Your task to perform on an android device: Show the shopping cart on costco. Search for logitech g pro on costco, select the first entry, add it to the cart, then select checkout. Image 0: 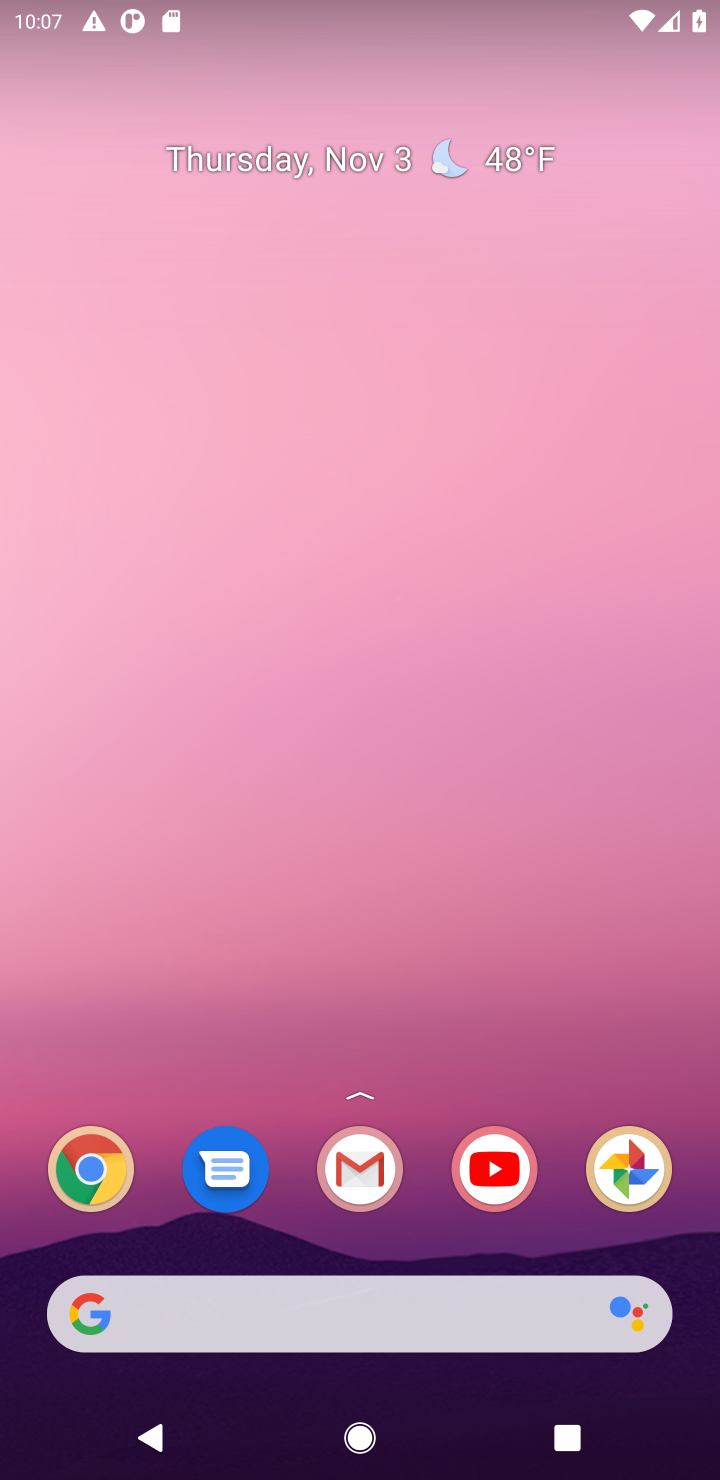
Step 0: drag from (430, 1247) to (512, 193)
Your task to perform on an android device: Show the shopping cart on costco. Search for logitech g pro on costco, select the first entry, add it to the cart, then select checkout. Image 1: 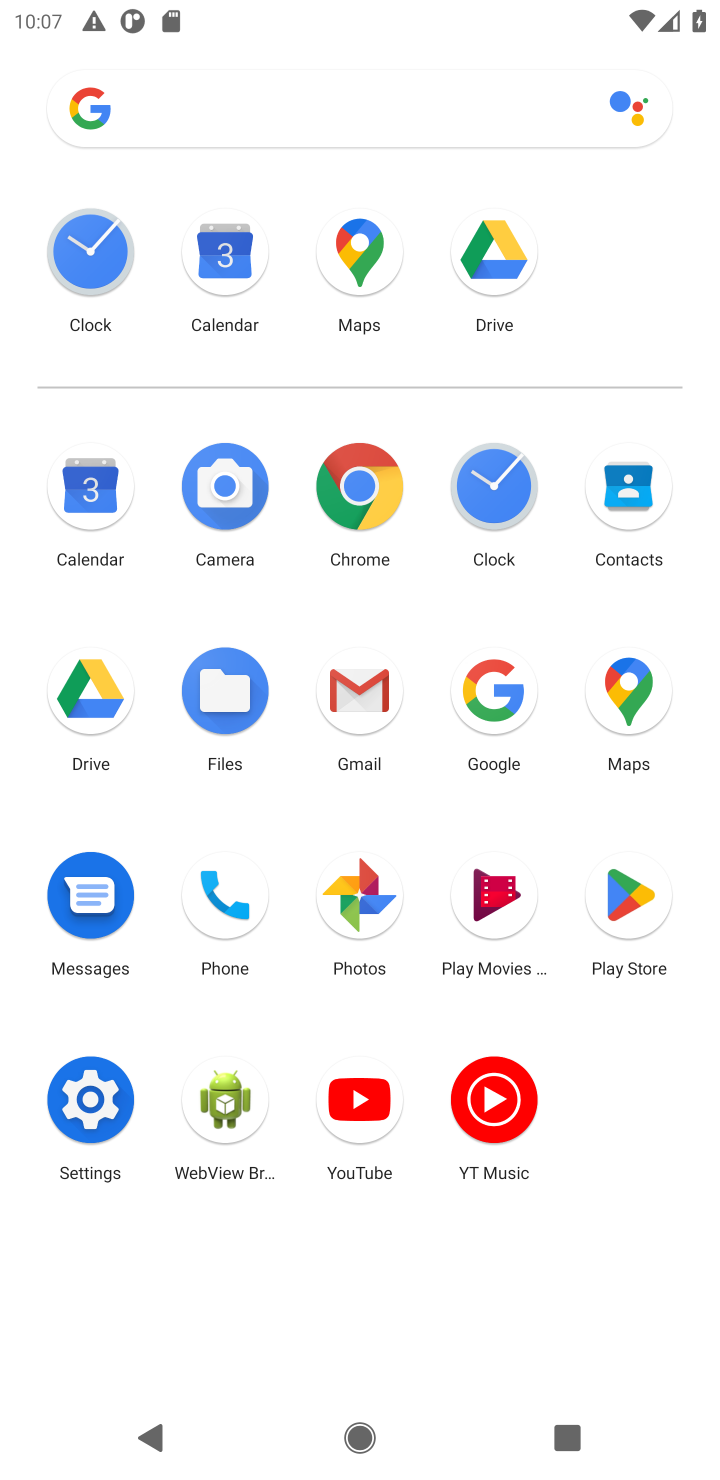
Step 1: click (355, 487)
Your task to perform on an android device: Show the shopping cart on costco. Search for logitech g pro on costco, select the first entry, add it to the cart, then select checkout. Image 2: 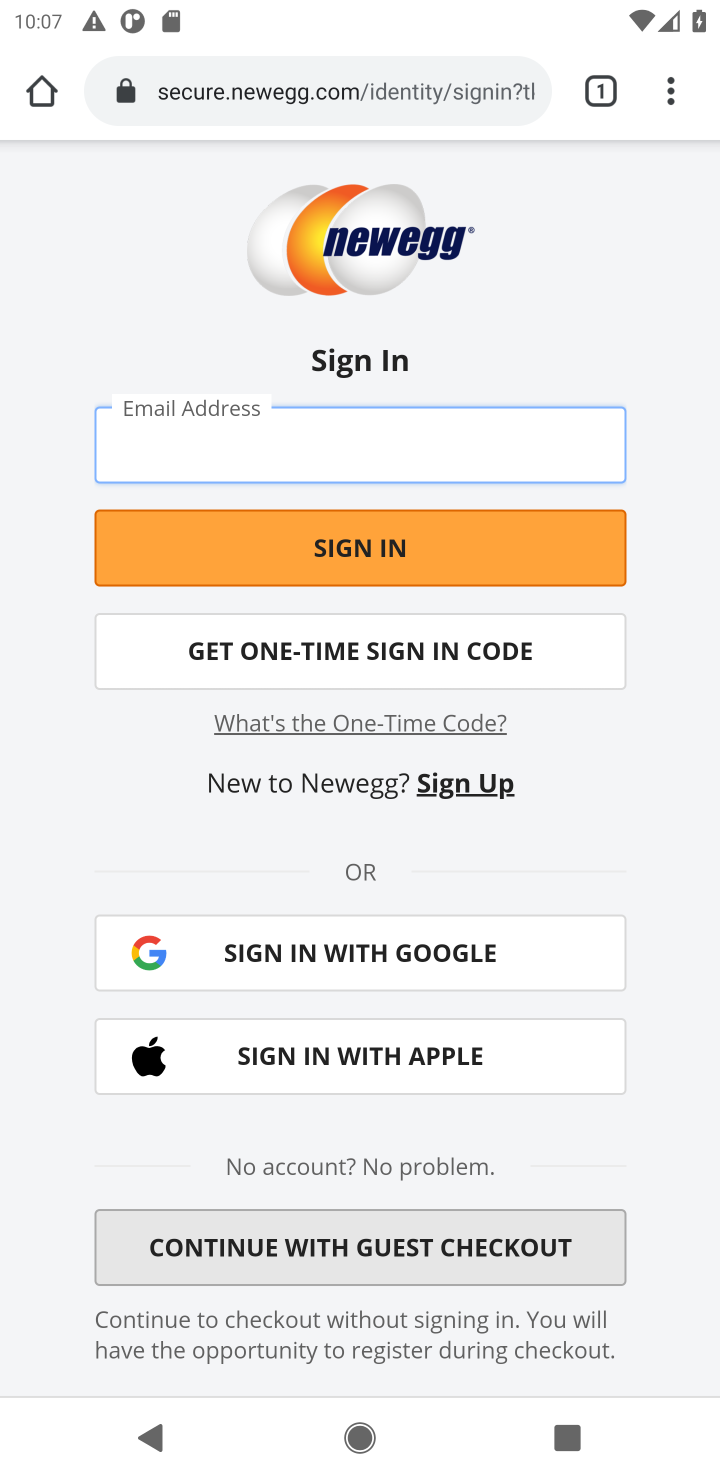
Step 2: click (419, 97)
Your task to perform on an android device: Show the shopping cart on costco. Search for logitech g pro on costco, select the first entry, add it to the cart, then select checkout. Image 3: 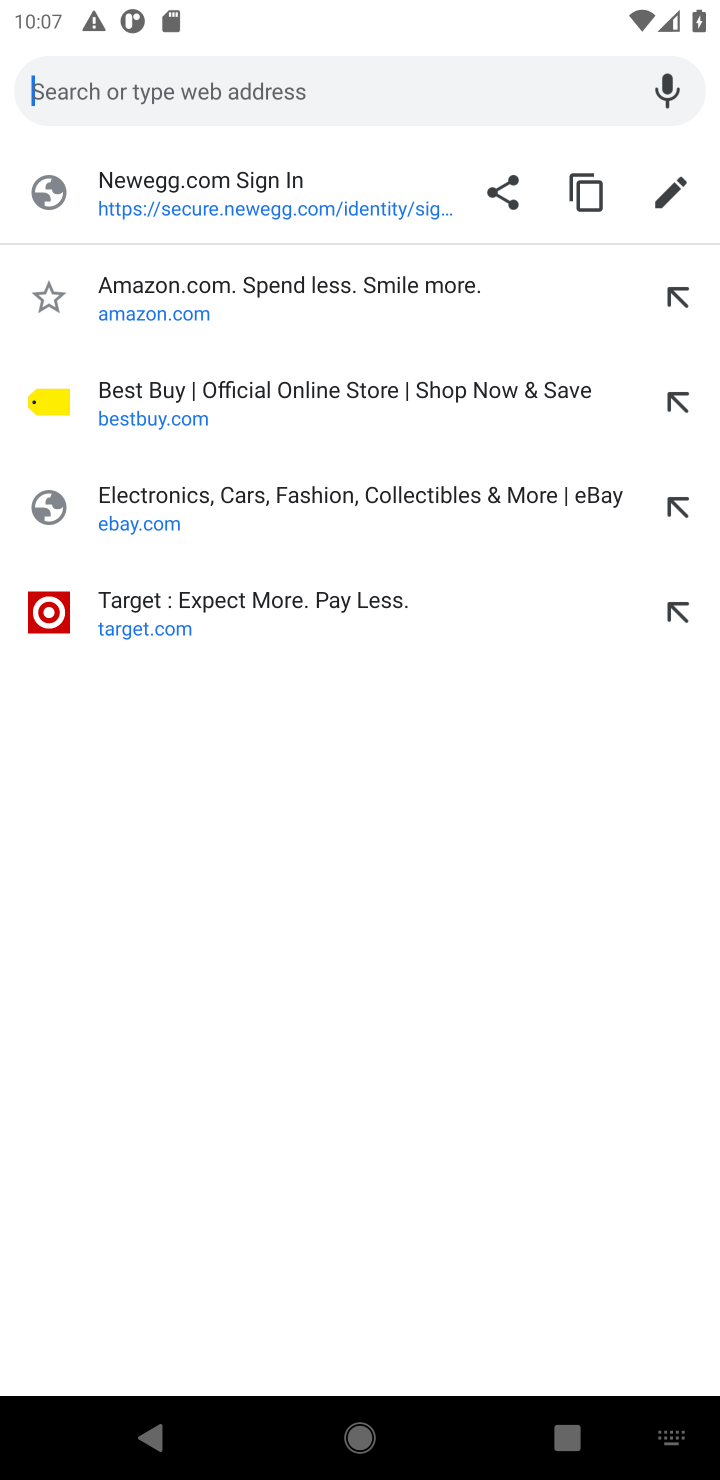
Step 3: type "costco.com"
Your task to perform on an android device: Show the shopping cart on costco. Search for logitech g pro on costco, select the first entry, add it to the cart, then select checkout. Image 4: 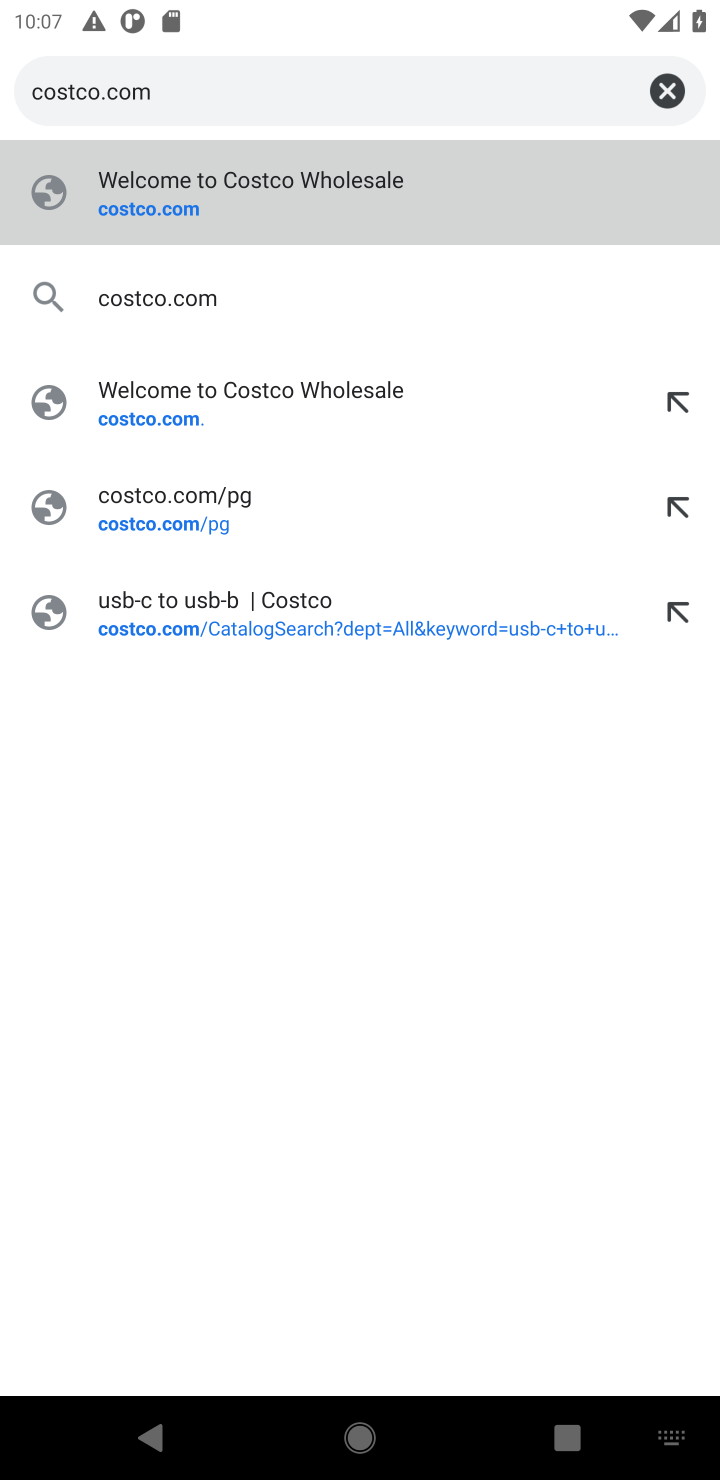
Step 4: press enter
Your task to perform on an android device: Show the shopping cart on costco. Search for logitech g pro on costco, select the first entry, add it to the cart, then select checkout. Image 5: 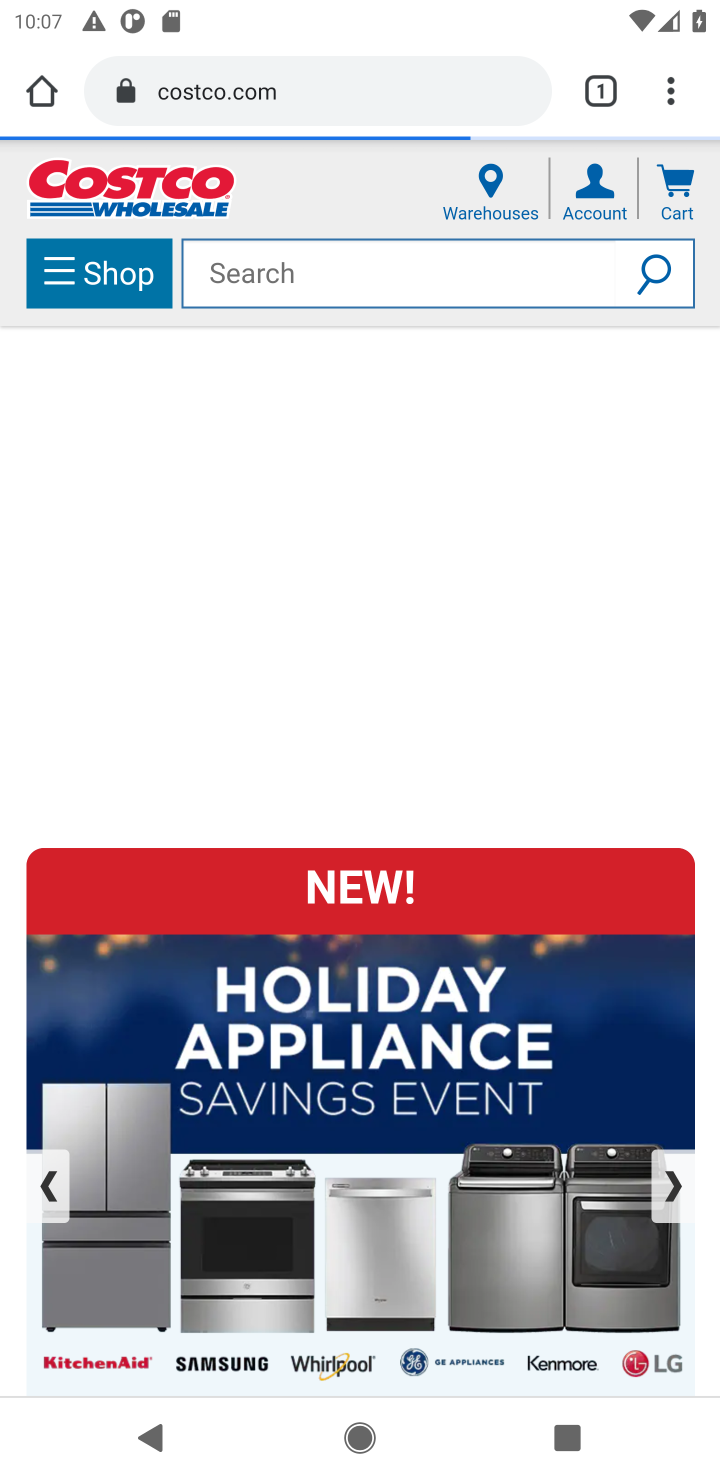
Step 5: click (680, 171)
Your task to perform on an android device: Show the shopping cart on costco. Search for logitech g pro on costco, select the first entry, add it to the cart, then select checkout. Image 6: 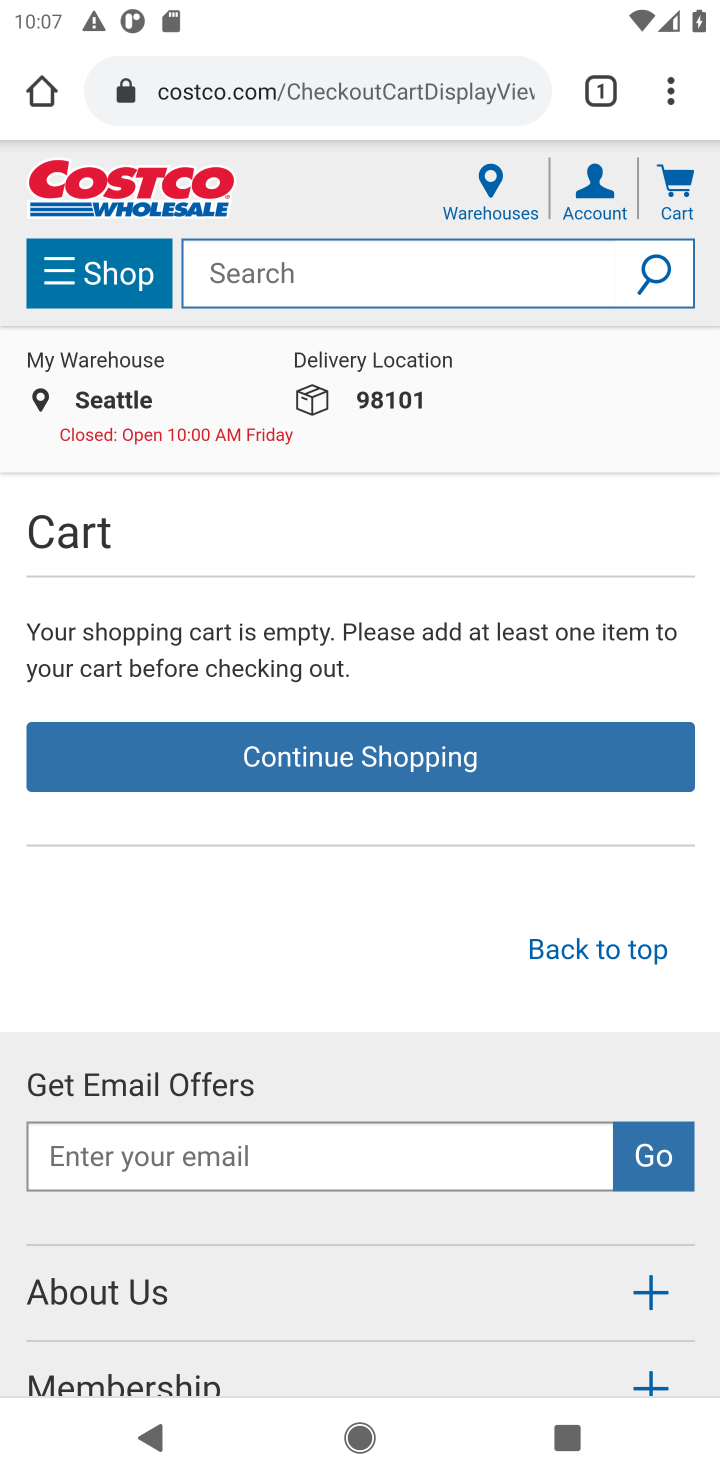
Step 6: click (397, 266)
Your task to perform on an android device: Show the shopping cart on costco. Search for logitech g pro on costco, select the first entry, add it to the cart, then select checkout. Image 7: 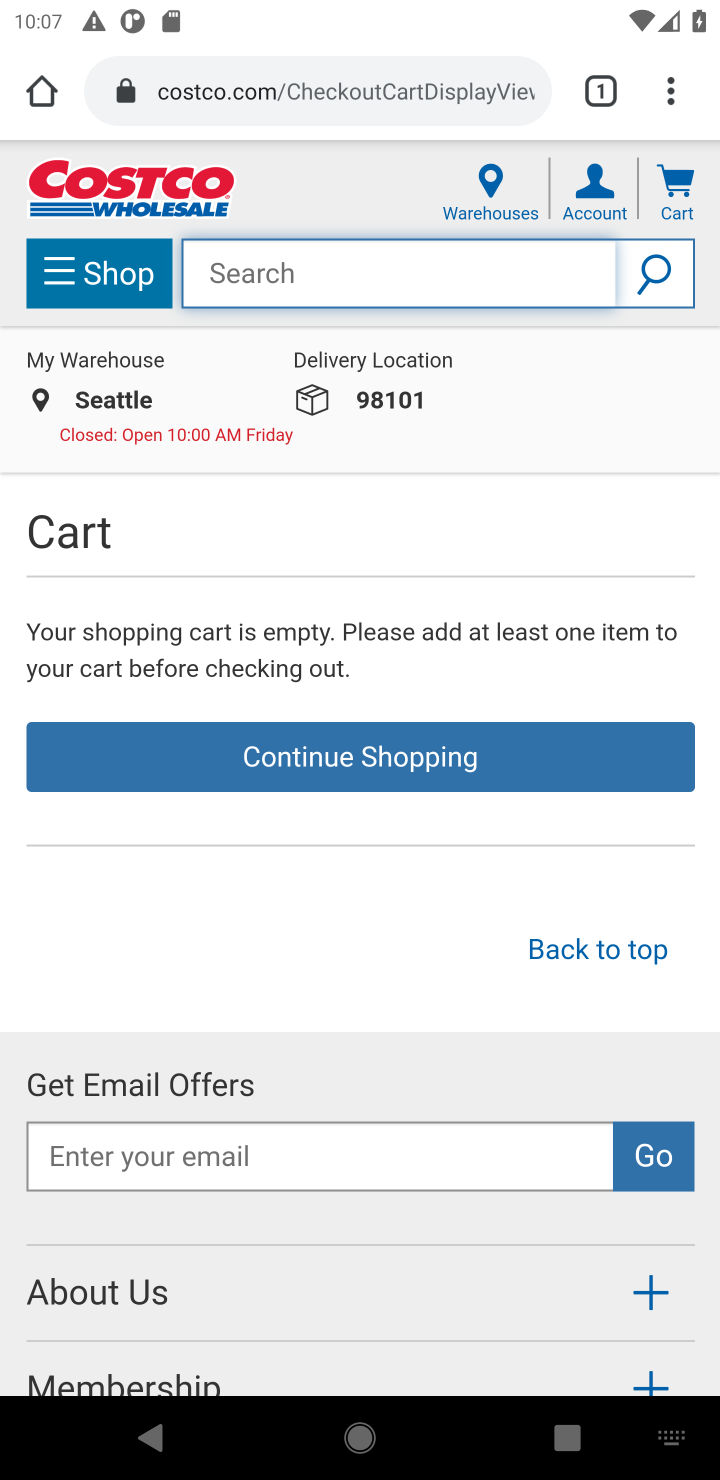
Step 7: type "logitech g pro"
Your task to perform on an android device: Show the shopping cart on costco. Search for logitech g pro on costco, select the first entry, add it to the cart, then select checkout. Image 8: 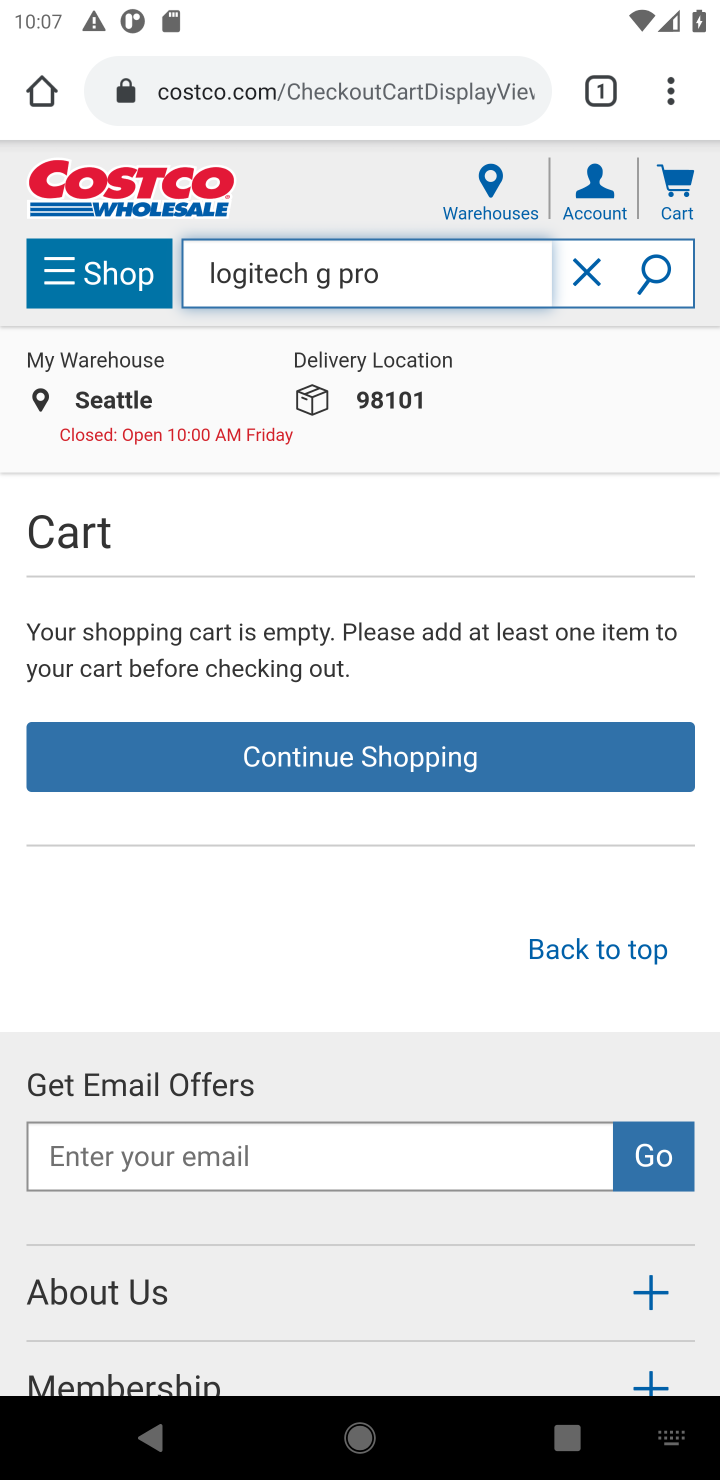
Step 8: press enter
Your task to perform on an android device: Show the shopping cart on costco. Search for logitech g pro on costco, select the first entry, add it to the cart, then select checkout. Image 9: 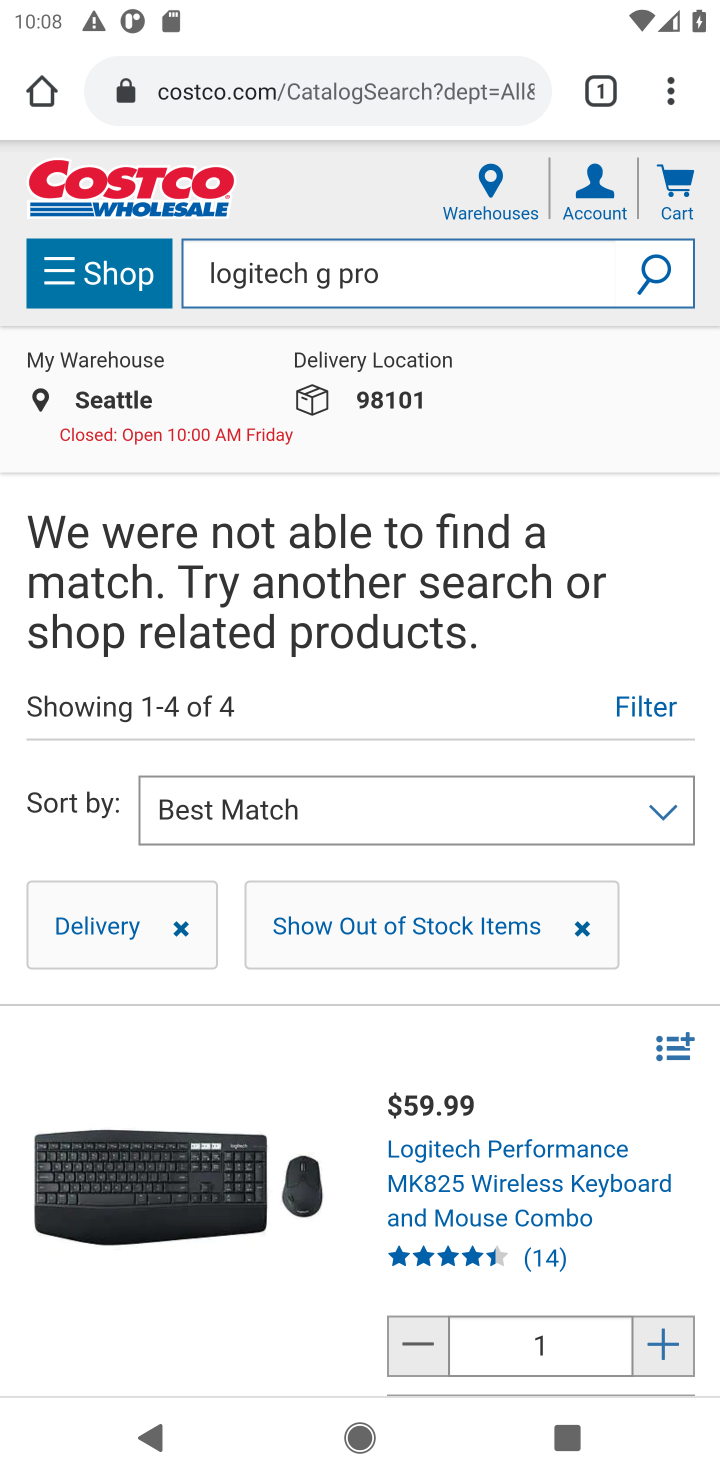
Step 9: task complete